Your task to perform on an android device: Go to notification settings Image 0: 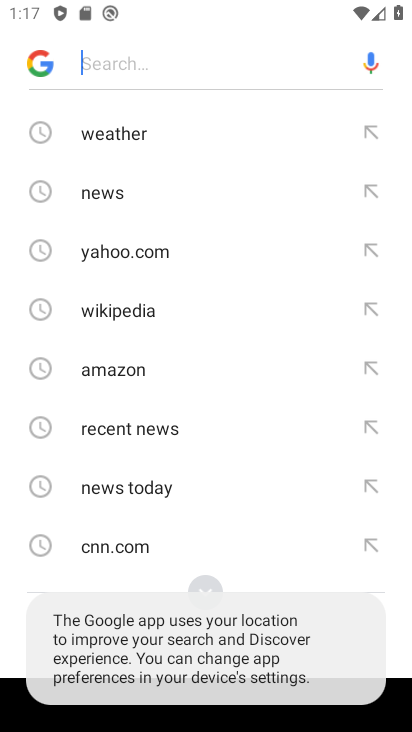
Step 0: press back button
Your task to perform on an android device: Go to notification settings Image 1: 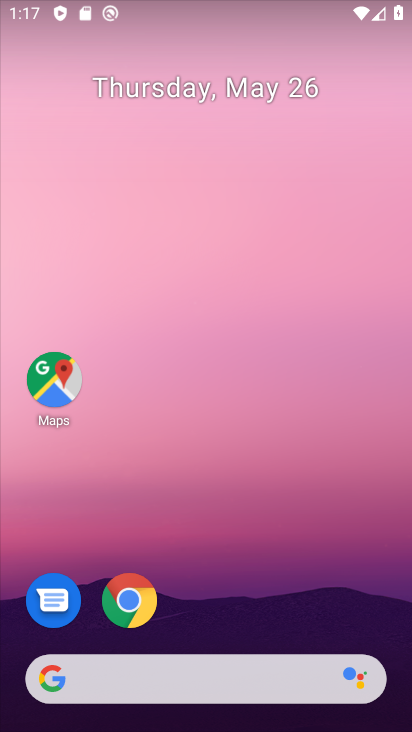
Step 1: drag from (246, 600) to (273, 91)
Your task to perform on an android device: Go to notification settings Image 2: 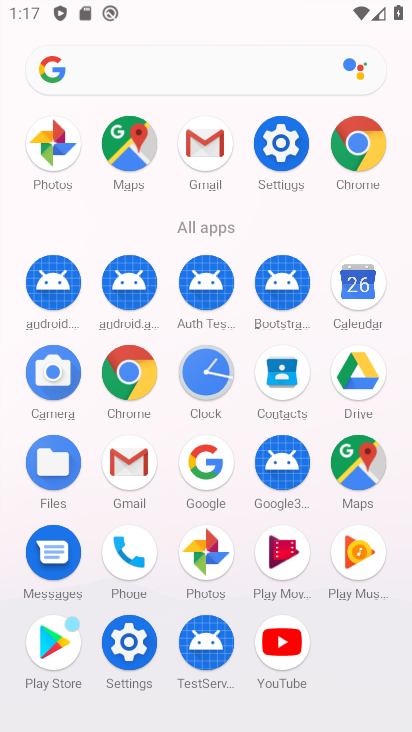
Step 2: click (127, 642)
Your task to perform on an android device: Go to notification settings Image 3: 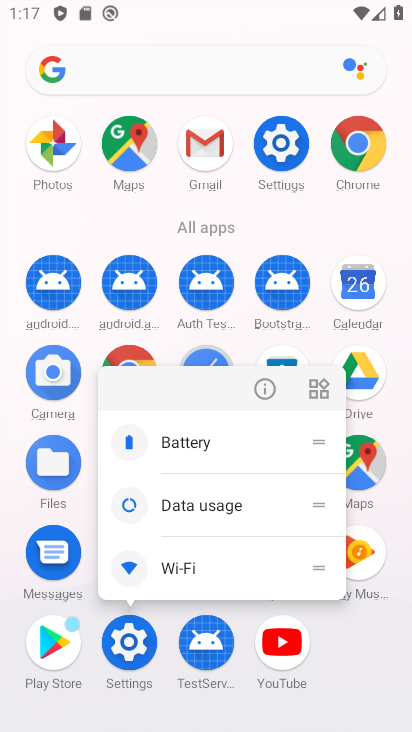
Step 3: click (127, 642)
Your task to perform on an android device: Go to notification settings Image 4: 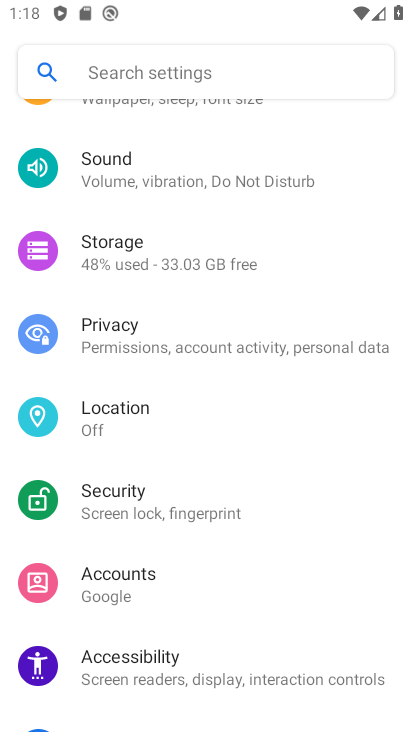
Step 4: drag from (221, 226) to (244, 334)
Your task to perform on an android device: Go to notification settings Image 5: 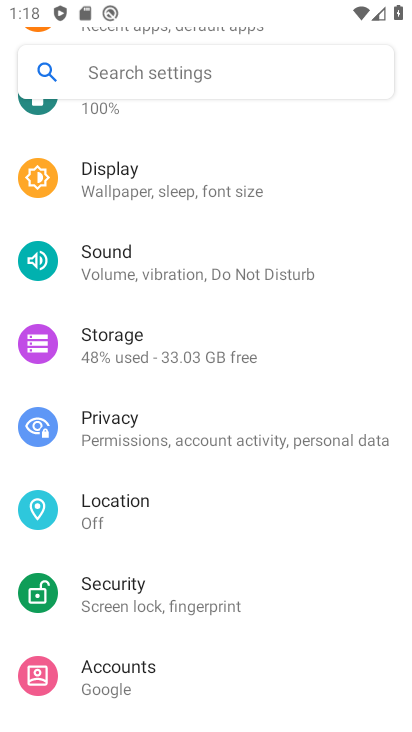
Step 5: drag from (202, 163) to (202, 351)
Your task to perform on an android device: Go to notification settings Image 6: 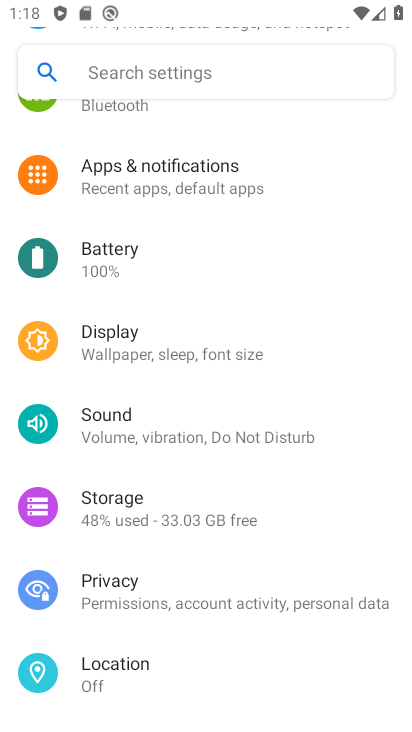
Step 6: drag from (181, 141) to (216, 302)
Your task to perform on an android device: Go to notification settings Image 7: 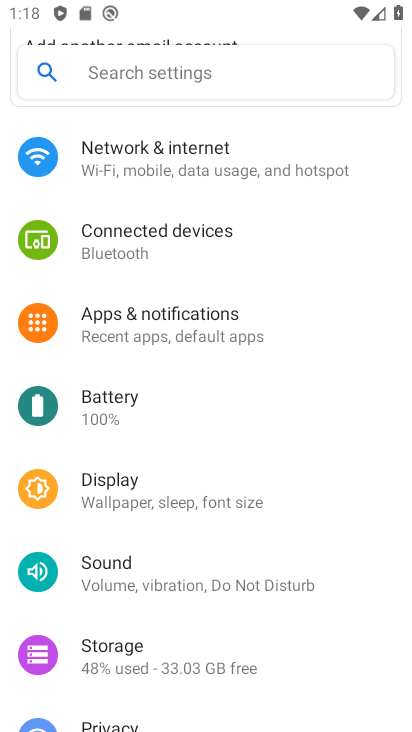
Step 7: click (163, 320)
Your task to perform on an android device: Go to notification settings Image 8: 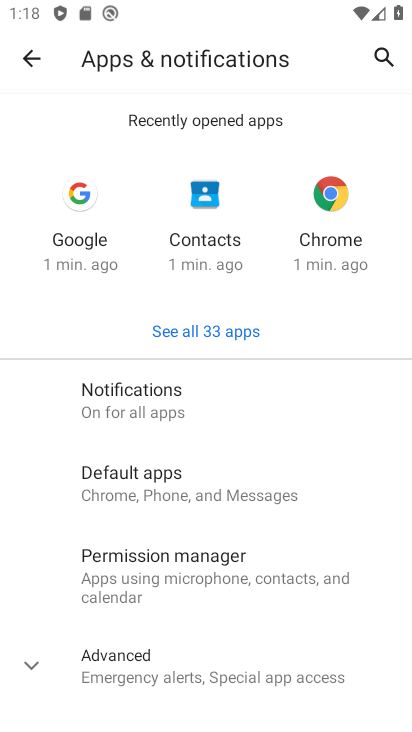
Step 8: click (137, 401)
Your task to perform on an android device: Go to notification settings Image 9: 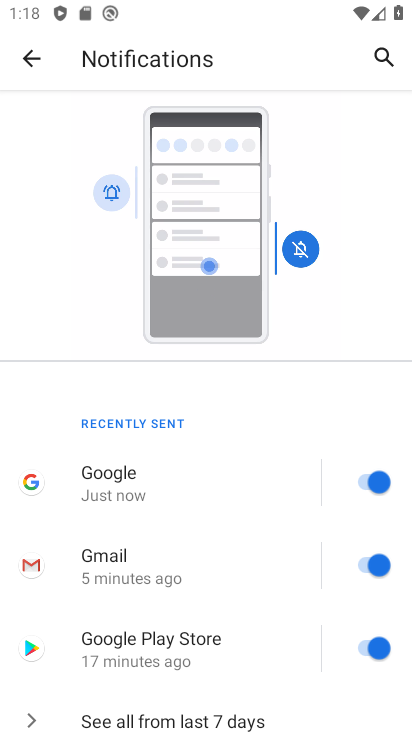
Step 9: task complete